Your task to perform on an android device: stop showing notifications on the lock screen Image 0: 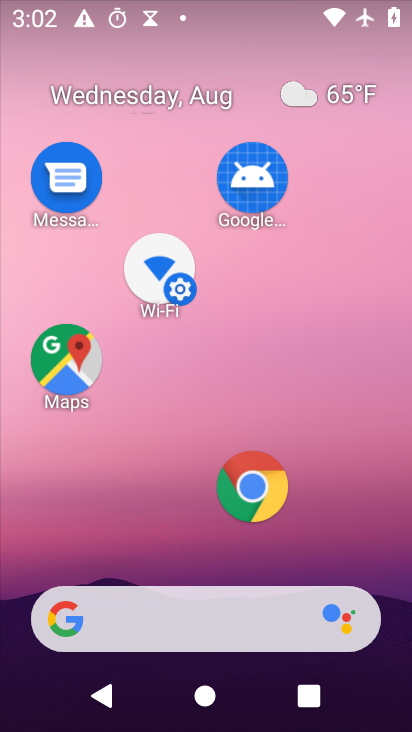
Step 0: press home button
Your task to perform on an android device: stop showing notifications on the lock screen Image 1: 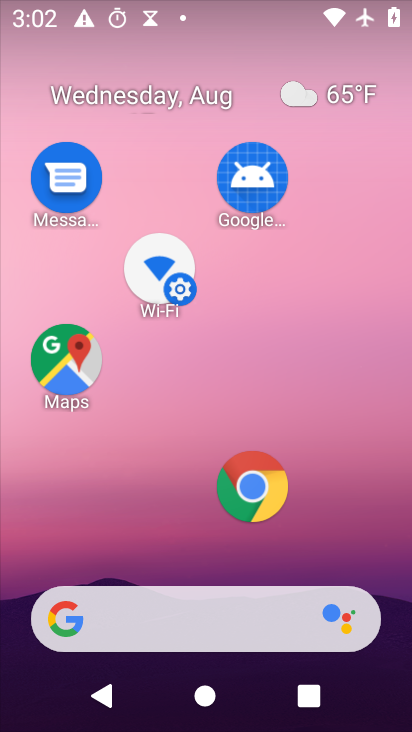
Step 1: click (244, 2)
Your task to perform on an android device: stop showing notifications on the lock screen Image 2: 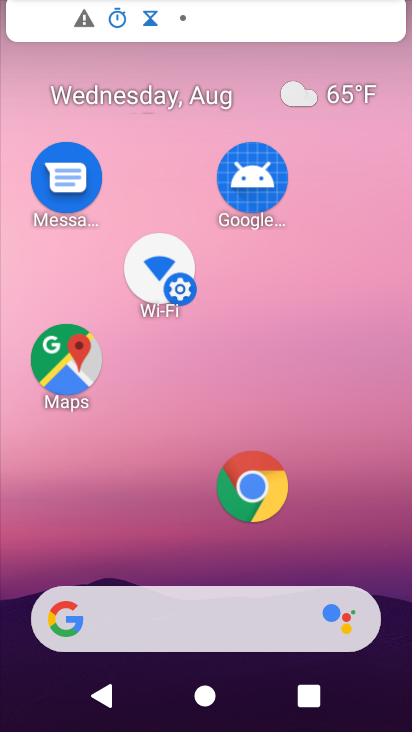
Step 2: drag from (381, 203) to (388, 16)
Your task to perform on an android device: stop showing notifications on the lock screen Image 3: 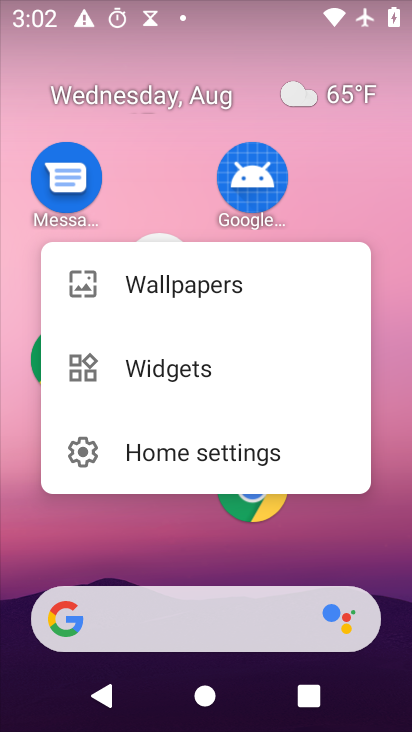
Step 3: click (359, 562)
Your task to perform on an android device: stop showing notifications on the lock screen Image 4: 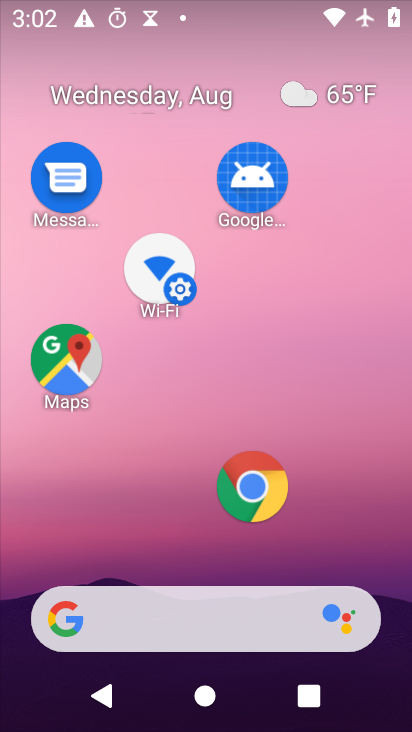
Step 4: drag from (313, 8) to (13, 221)
Your task to perform on an android device: stop showing notifications on the lock screen Image 5: 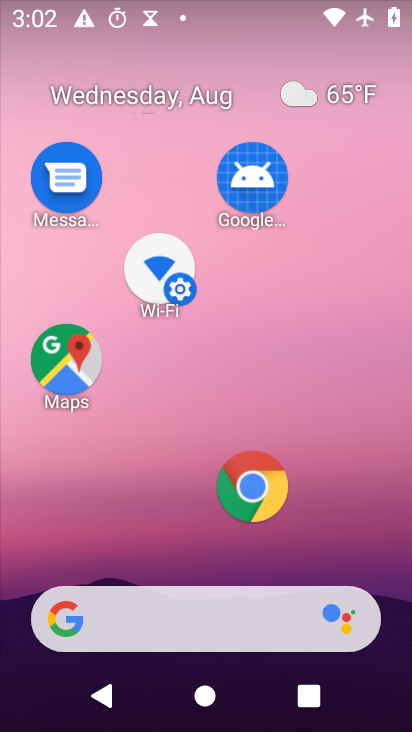
Step 5: drag from (223, 567) to (271, 5)
Your task to perform on an android device: stop showing notifications on the lock screen Image 6: 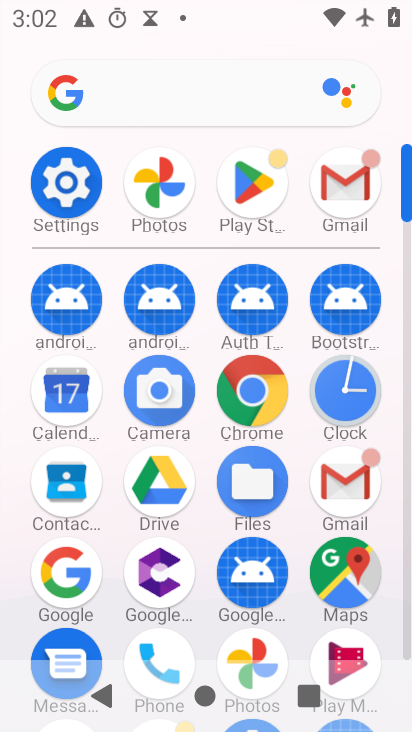
Step 6: click (69, 181)
Your task to perform on an android device: stop showing notifications on the lock screen Image 7: 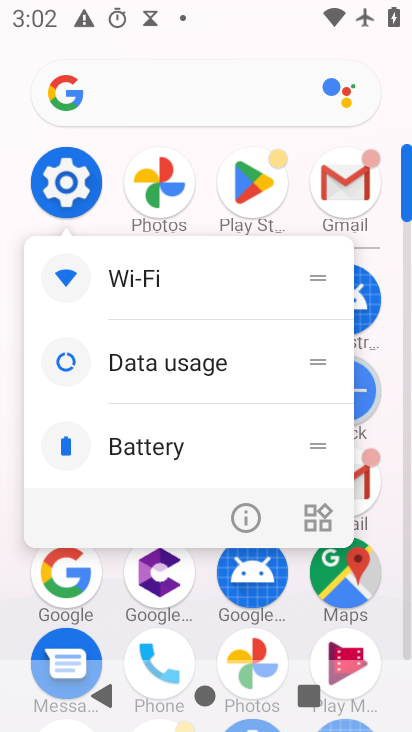
Step 7: click (69, 181)
Your task to perform on an android device: stop showing notifications on the lock screen Image 8: 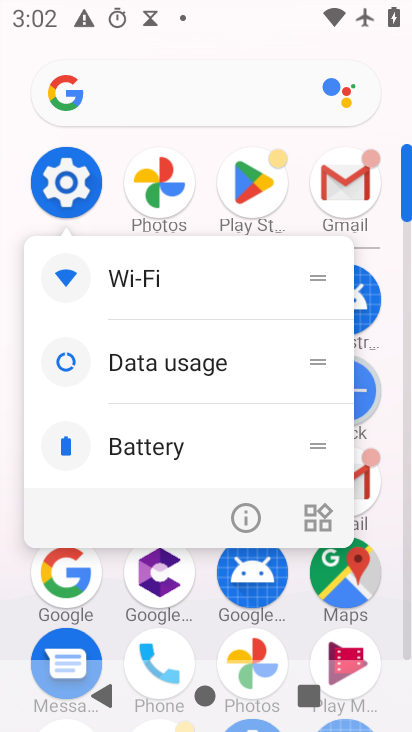
Step 8: click (69, 179)
Your task to perform on an android device: stop showing notifications on the lock screen Image 9: 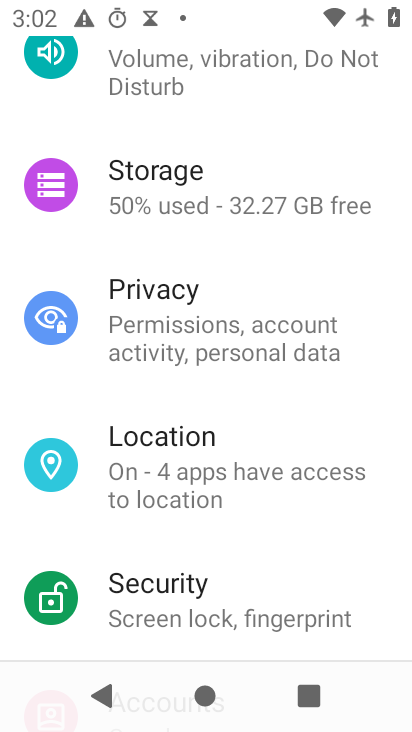
Step 9: drag from (337, 554) to (386, 89)
Your task to perform on an android device: stop showing notifications on the lock screen Image 10: 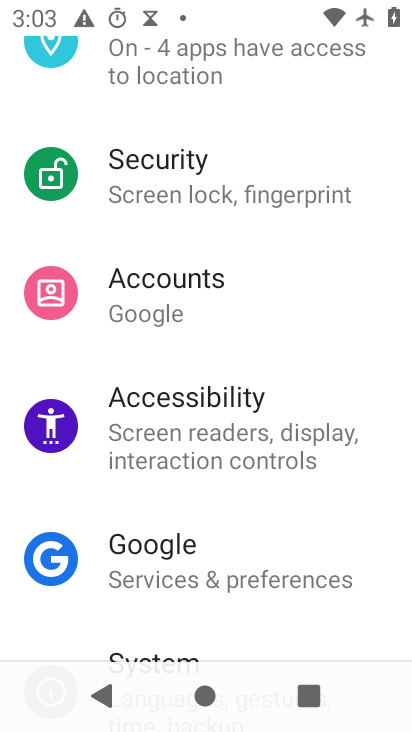
Step 10: drag from (274, 510) to (252, 725)
Your task to perform on an android device: stop showing notifications on the lock screen Image 11: 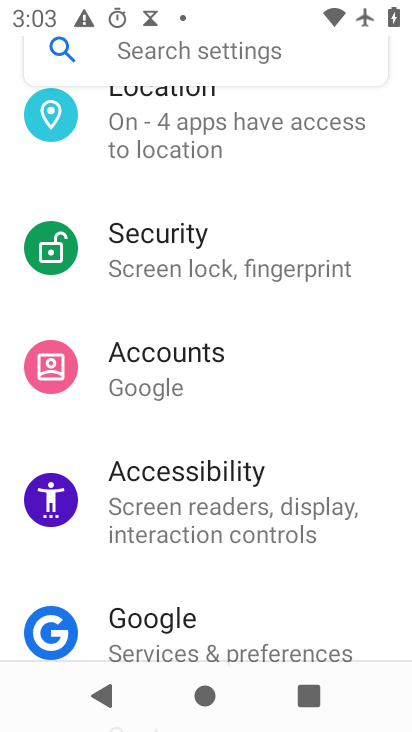
Step 11: drag from (262, 172) to (262, 725)
Your task to perform on an android device: stop showing notifications on the lock screen Image 12: 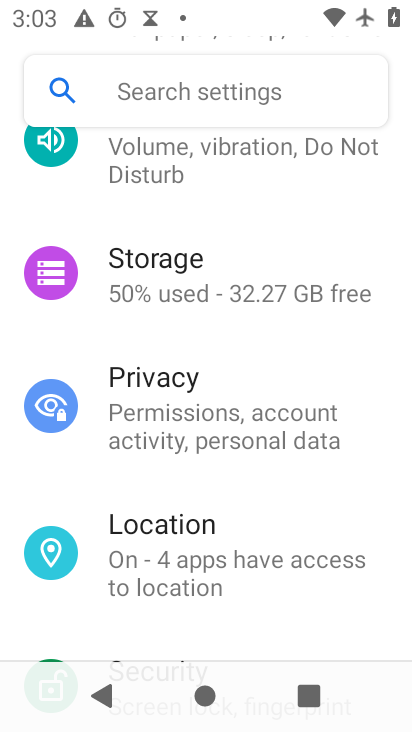
Step 12: drag from (263, 257) to (331, 730)
Your task to perform on an android device: stop showing notifications on the lock screen Image 13: 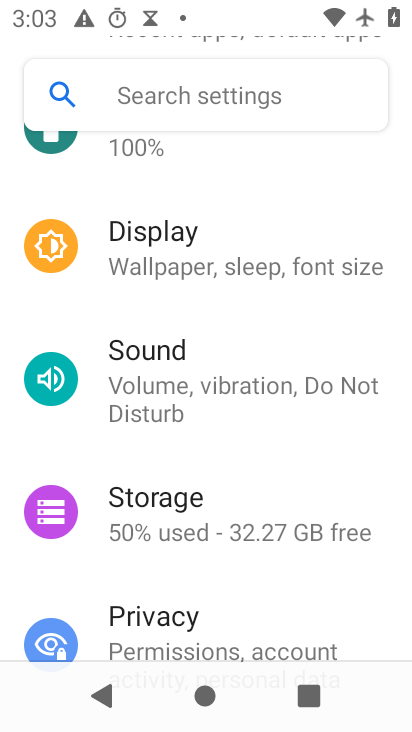
Step 13: drag from (308, 158) to (349, 717)
Your task to perform on an android device: stop showing notifications on the lock screen Image 14: 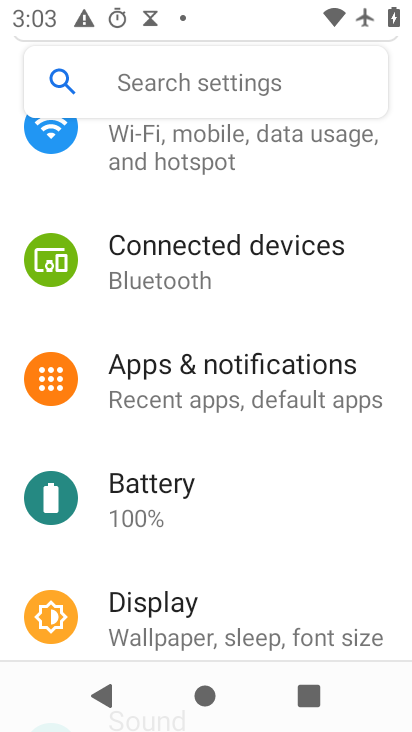
Step 14: drag from (288, 185) to (305, 467)
Your task to perform on an android device: stop showing notifications on the lock screen Image 15: 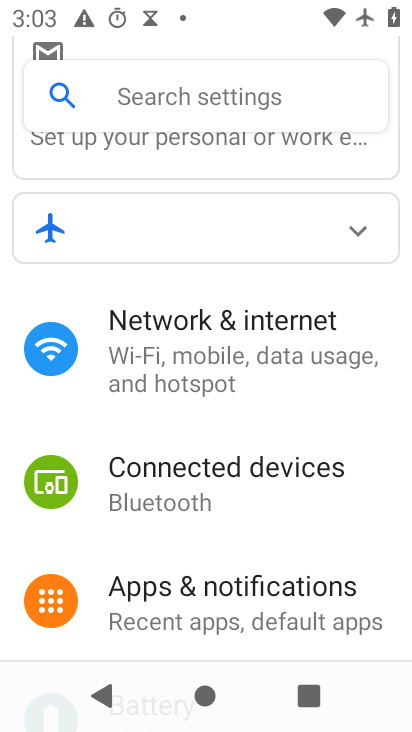
Step 15: click (239, 606)
Your task to perform on an android device: stop showing notifications on the lock screen Image 16: 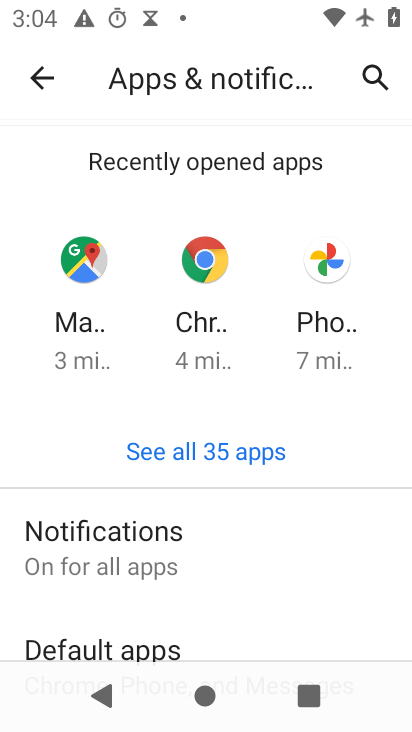
Step 16: drag from (280, 528) to (288, 238)
Your task to perform on an android device: stop showing notifications on the lock screen Image 17: 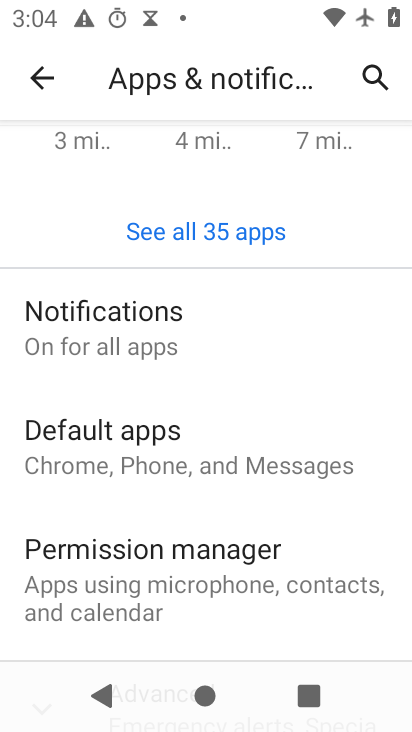
Step 17: click (108, 332)
Your task to perform on an android device: stop showing notifications on the lock screen Image 18: 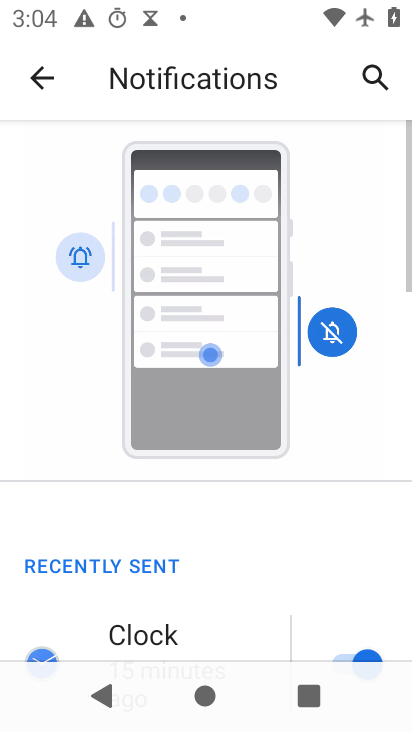
Step 18: drag from (377, 526) to (401, 84)
Your task to perform on an android device: stop showing notifications on the lock screen Image 19: 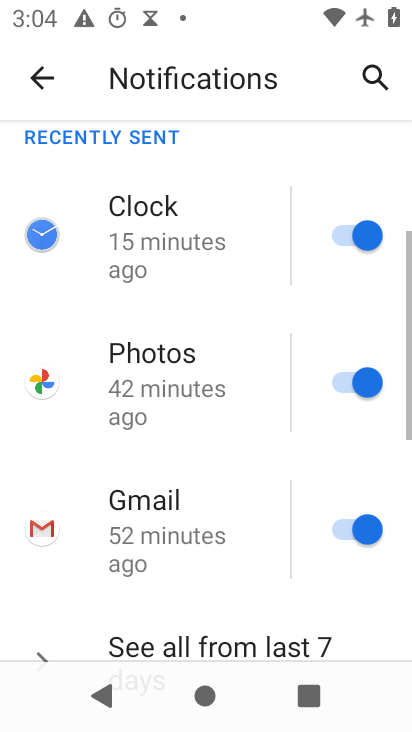
Step 19: drag from (382, 612) to (385, 101)
Your task to perform on an android device: stop showing notifications on the lock screen Image 20: 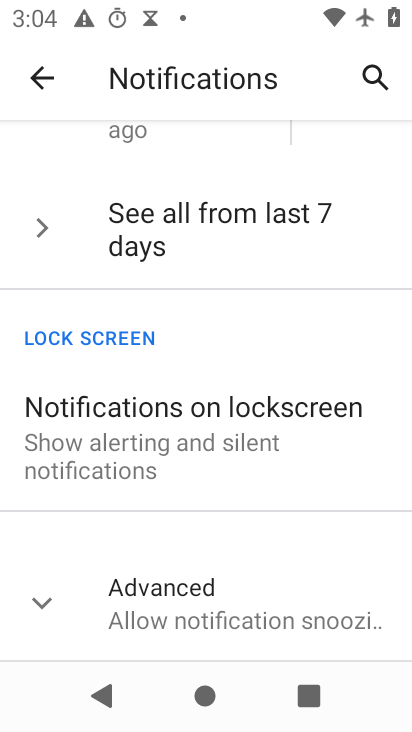
Step 20: click (168, 424)
Your task to perform on an android device: stop showing notifications on the lock screen Image 21: 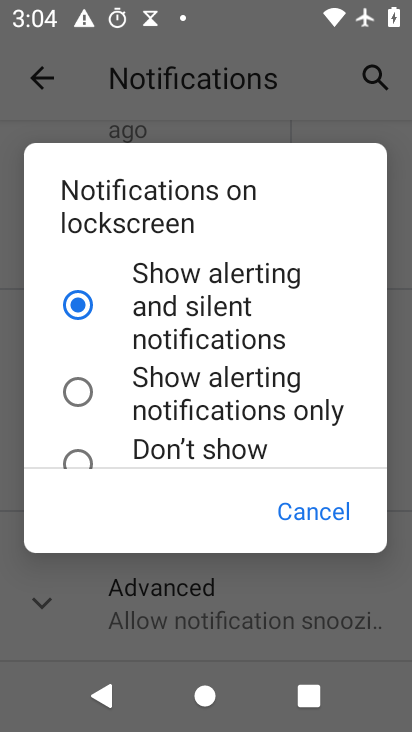
Step 21: click (78, 453)
Your task to perform on an android device: stop showing notifications on the lock screen Image 22: 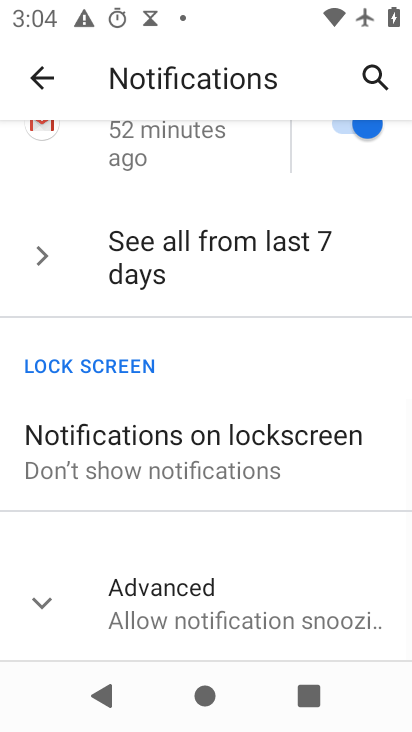
Step 22: task complete